Your task to perform on an android device: Go to wifi settings Image 0: 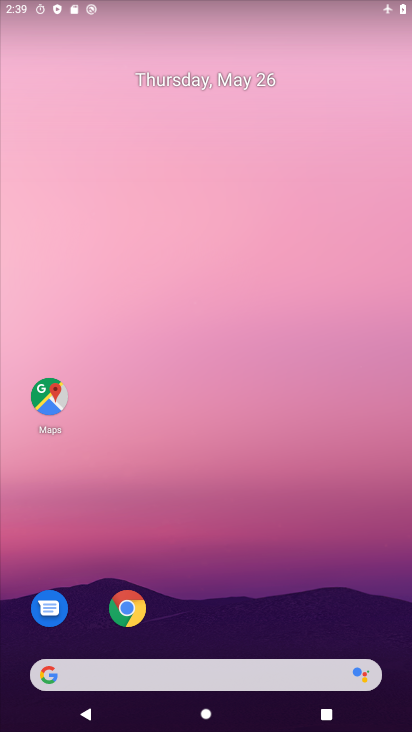
Step 0: drag from (260, 696) to (254, 3)
Your task to perform on an android device: Go to wifi settings Image 1: 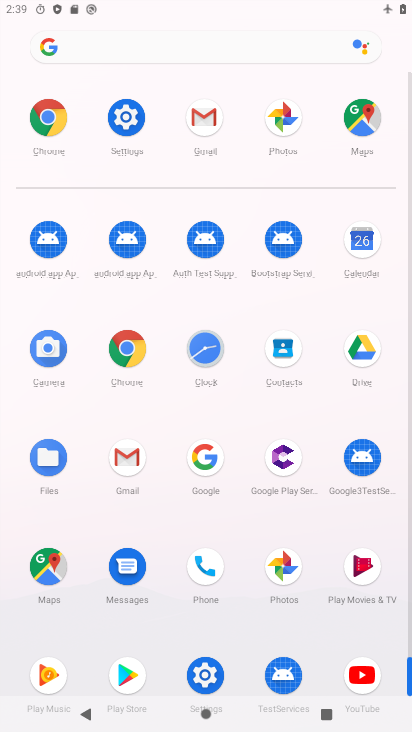
Step 1: drag from (233, 584) to (199, 265)
Your task to perform on an android device: Go to wifi settings Image 2: 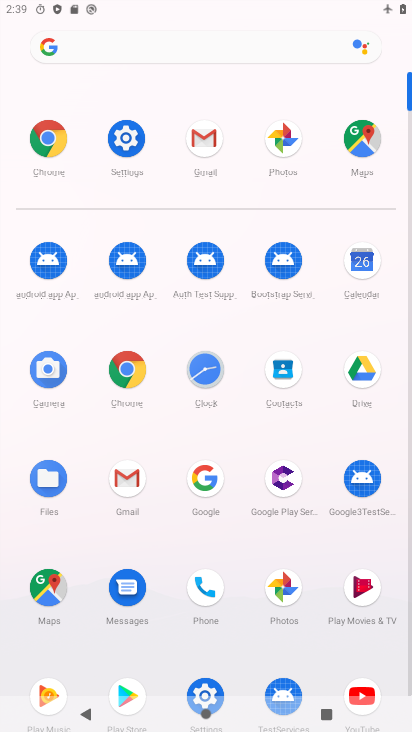
Step 2: click (297, 169)
Your task to perform on an android device: Go to wifi settings Image 3: 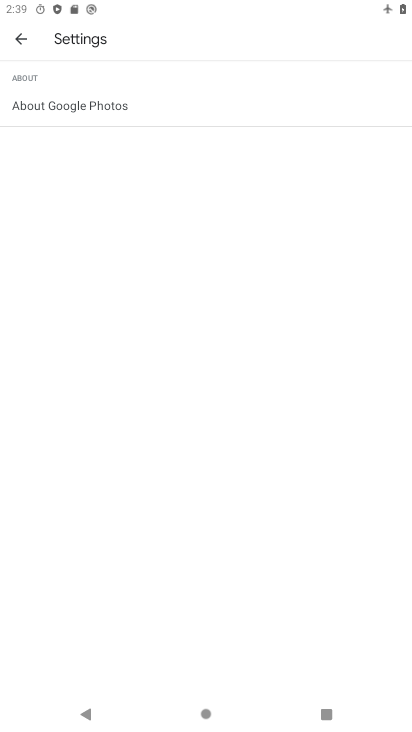
Step 3: click (22, 38)
Your task to perform on an android device: Go to wifi settings Image 4: 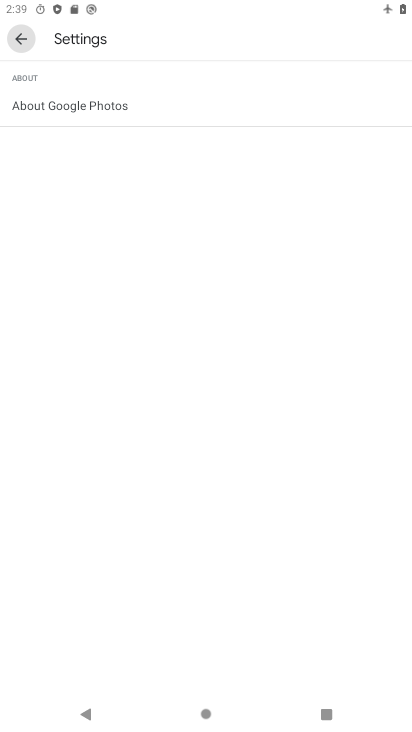
Step 4: click (23, 39)
Your task to perform on an android device: Go to wifi settings Image 5: 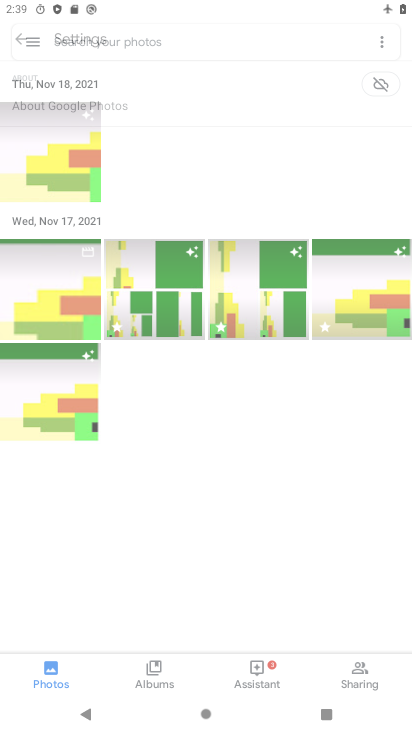
Step 5: click (25, 41)
Your task to perform on an android device: Go to wifi settings Image 6: 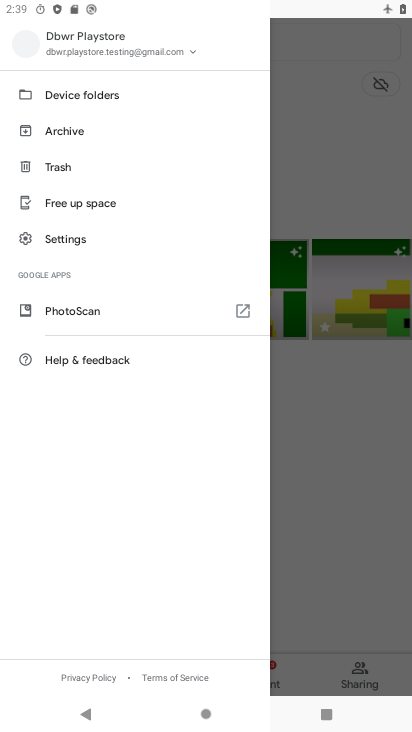
Step 6: press back button
Your task to perform on an android device: Go to wifi settings Image 7: 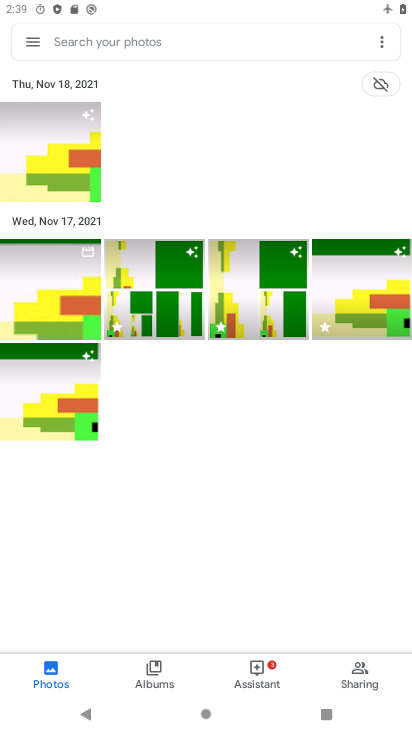
Step 7: press home button
Your task to perform on an android device: Go to wifi settings Image 8: 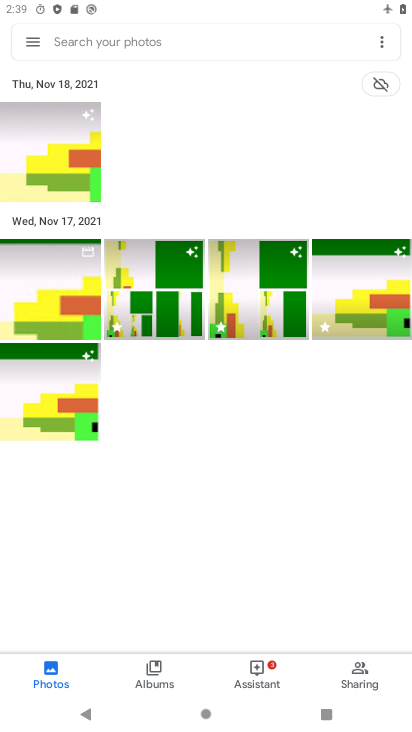
Step 8: press home button
Your task to perform on an android device: Go to wifi settings Image 9: 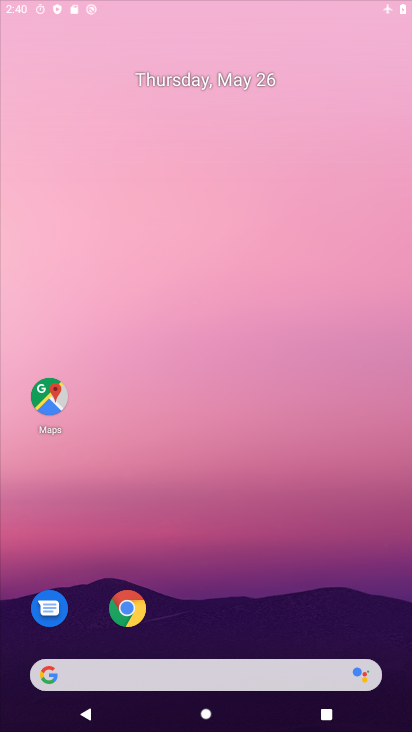
Step 9: press home button
Your task to perform on an android device: Go to wifi settings Image 10: 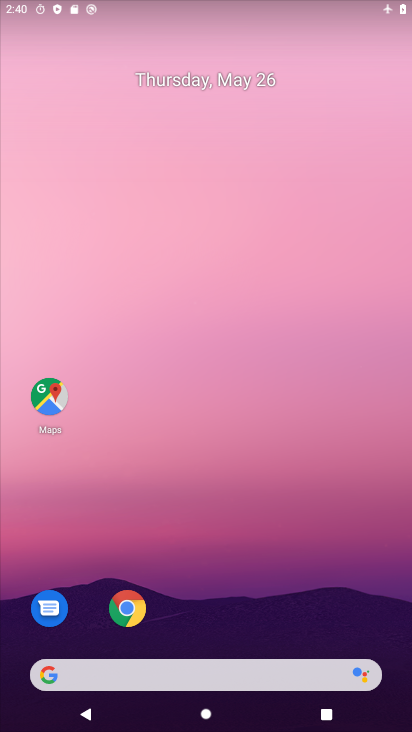
Step 10: press home button
Your task to perform on an android device: Go to wifi settings Image 11: 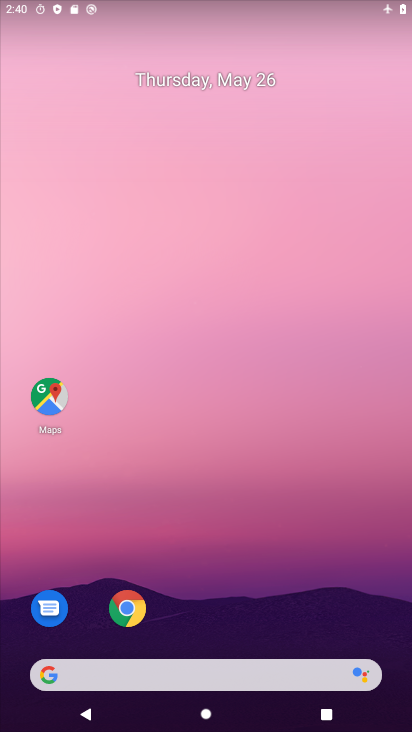
Step 11: drag from (280, 677) to (168, 55)
Your task to perform on an android device: Go to wifi settings Image 12: 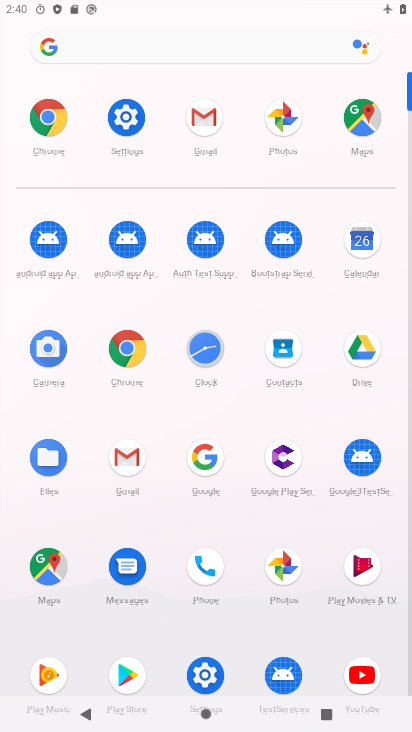
Step 12: click (126, 127)
Your task to perform on an android device: Go to wifi settings Image 13: 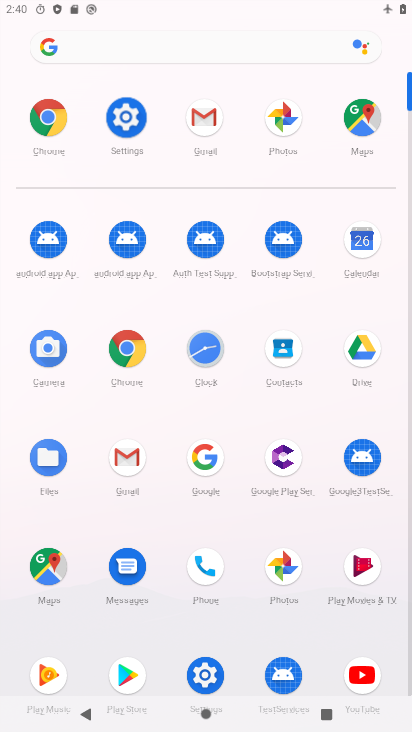
Step 13: click (126, 127)
Your task to perform on an android device: Go to wifi settings Image 14: 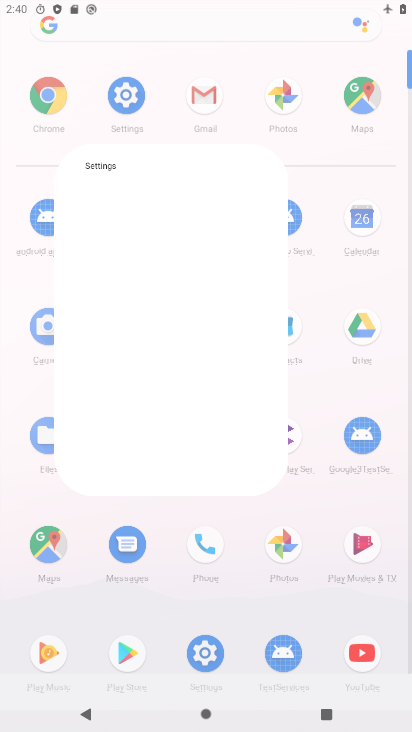
Step 14: click (124, 126)
Your task to perform on an android device: Go to wifi settings Image 15: 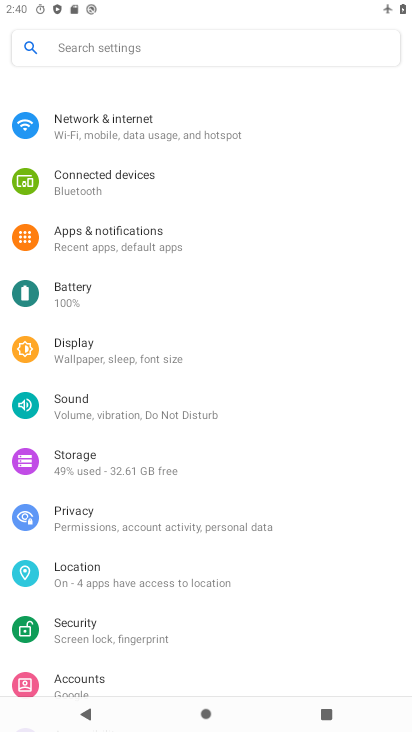
Step 15: click (120, 125)
Your task to perform on an android device: Go to wifi settings Image 16: 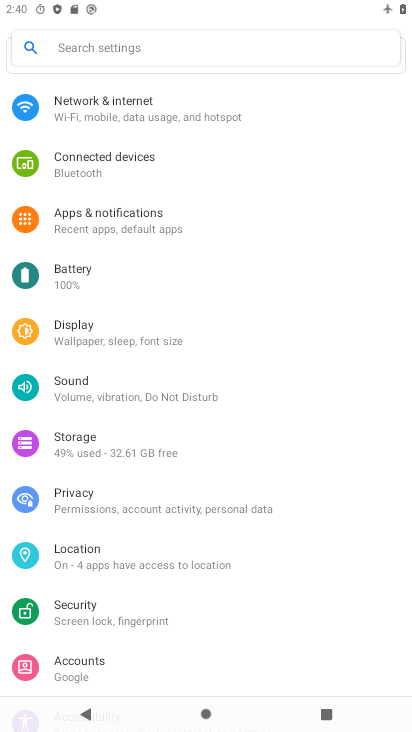
Step 16: click (109, 121)
Your task to perform on an android device: Go to wifi settings Image 17: 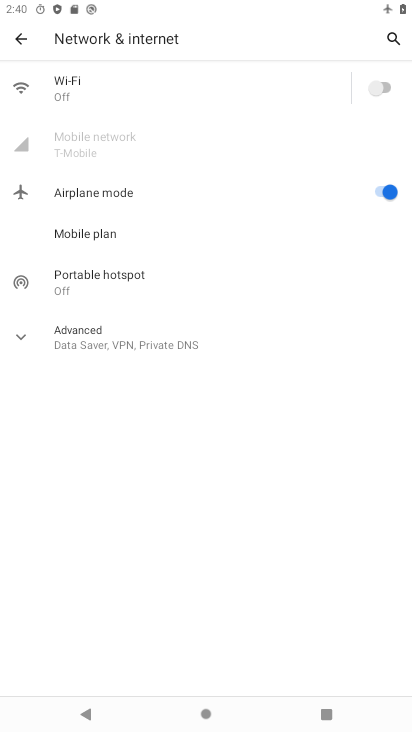
Step 17: task complete